Your task to perform on an android device: Open ESPN.com Image 0: 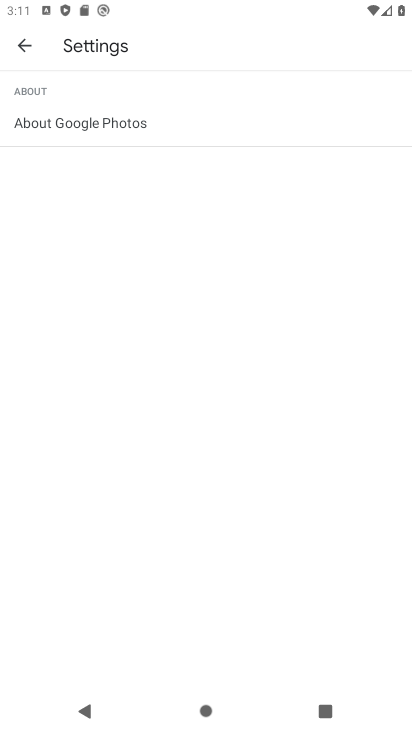
Step 0: press home button
Your task to perform on an android device: Open ESPN.com Image 1: 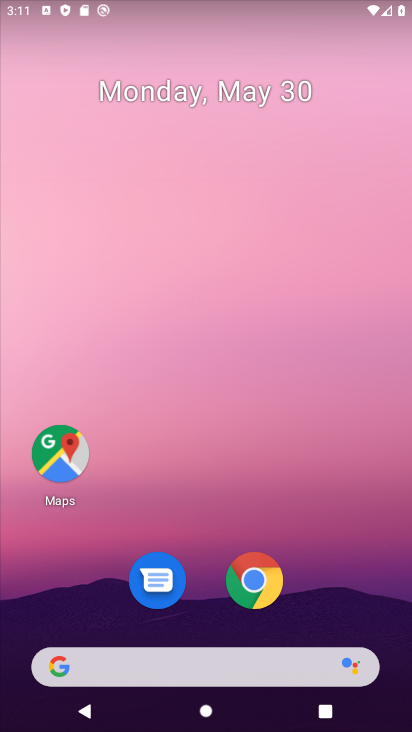
Step 1: drag from (203, 600) to (282, 55)
Your task to perform on an android device: Open ESPN.com Image 2: 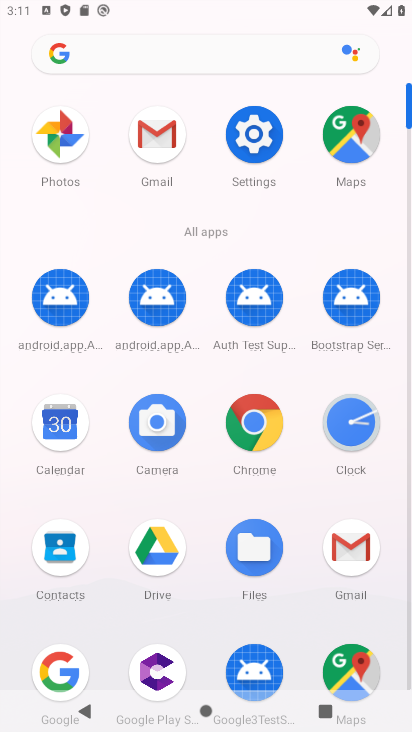
Step 2: click (58, 675)
Your task to perform on an android device: Open ESPN.com Image 3: 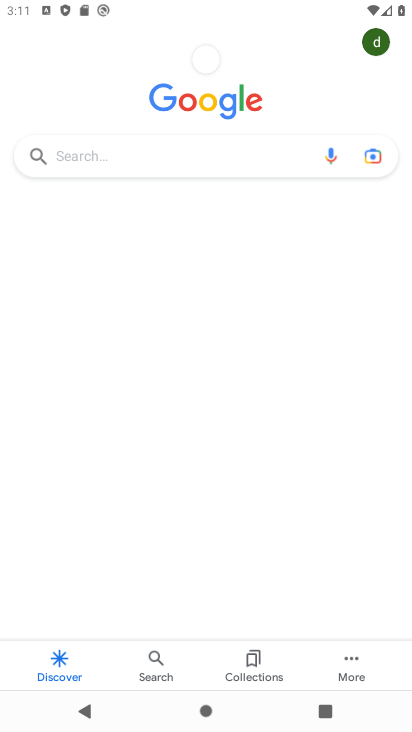
Step 3: click (143, 142)
Your task to perform on an android device: Open ESPN.com Image 4: 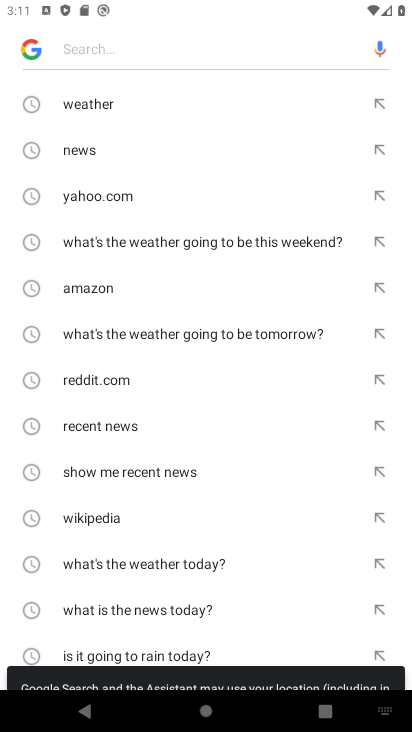
Step 4: drag from (159, 556) to (197, 122)
Your task to perform on an android device: Open ESPN.com Image 5: 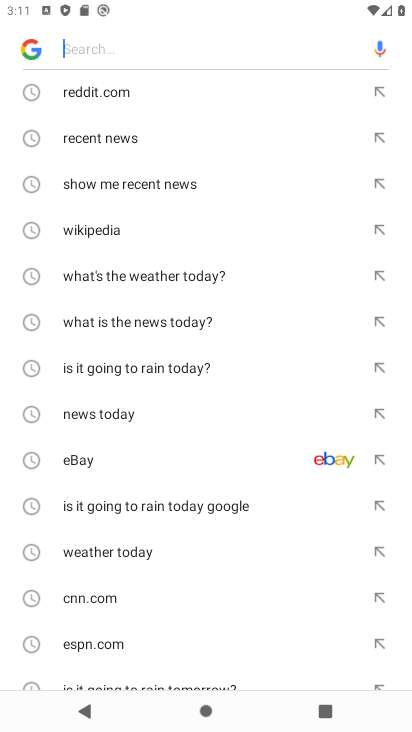
Step 5: click (83, 643)
Your task to perform on an android device: Open ESPN.com Image 6: 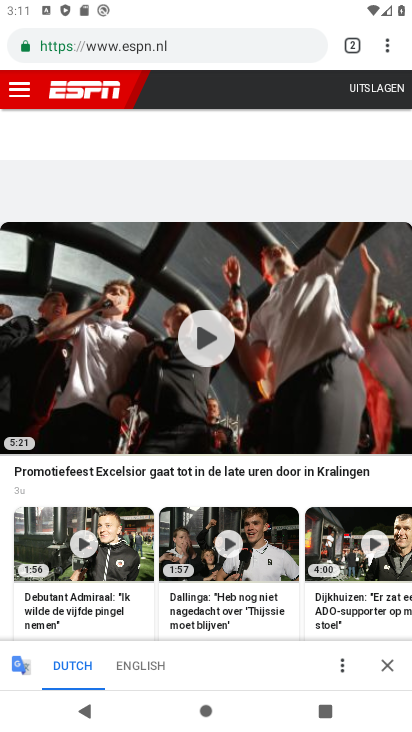
Step 6: task complete